Your task to perform on an android device: Toggle the flashlight Image 0: 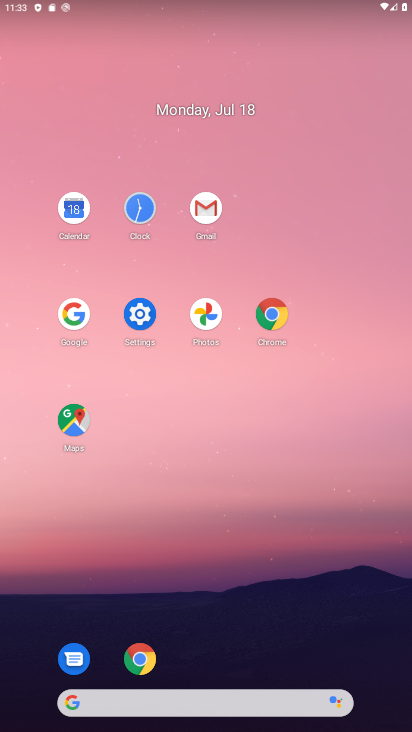
Step 0: drag from (323, 2) to (364, 486)
Your task to perform on an android device: Toggle the flashlight Image 1: 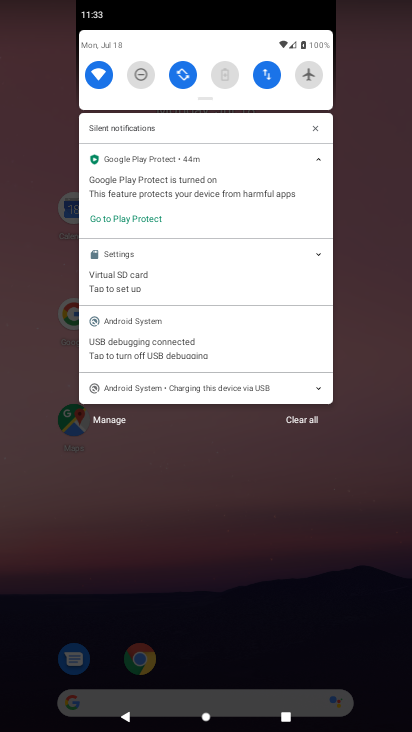
Step 1: task complete